Your task to perform on an android device: turn on sleep mode Image 0: 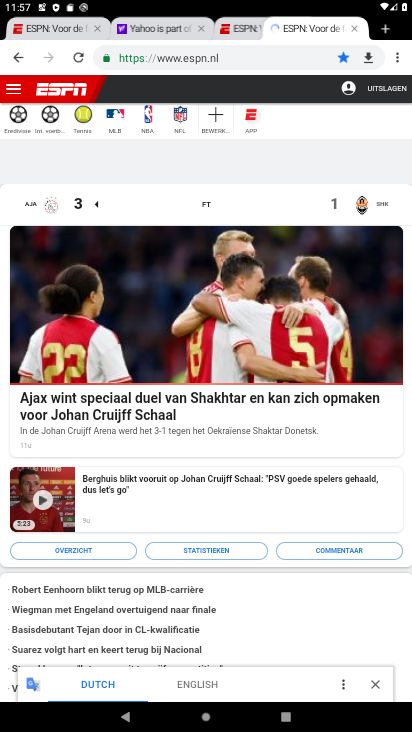
Step 0: press home button
Your task to perform on an android device: turn on sleep mode Image 1: 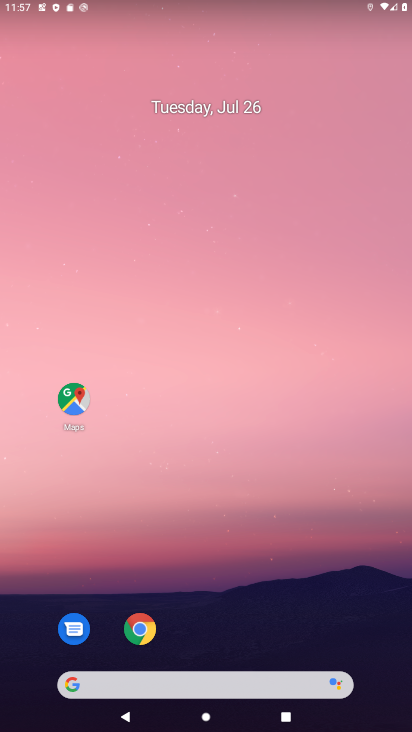
Step 1: drag from (233, 657) to (233, 429)
Your task to perform on an android device: turn on sleep mode Image 2: 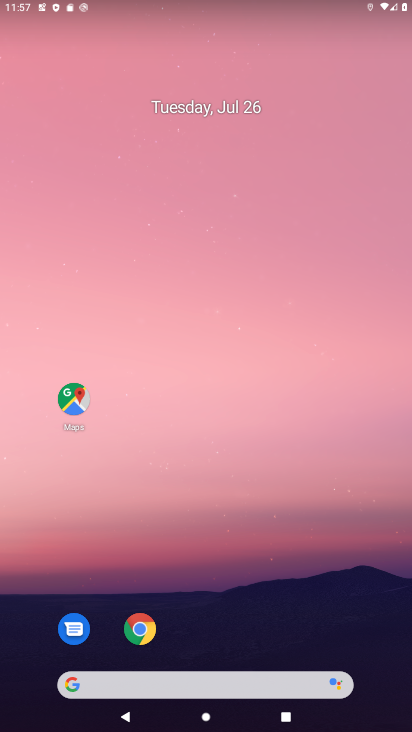
Step 2: drag from (224, 664) to (224, 283)
Your task to perform on an android device: turn on sleep mode Image 3: 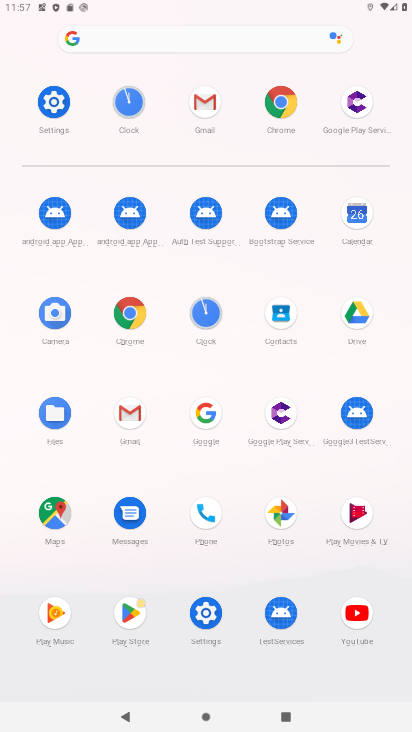
Step 3: click (213, 610)
Your task to perform on an android device: turn on sleep mode Image 4: 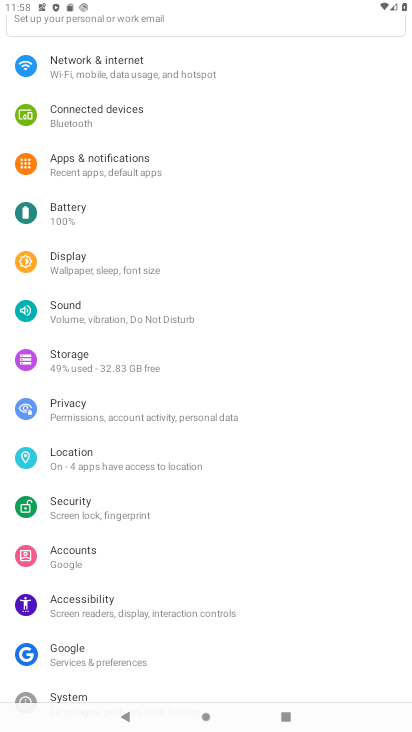
Step 4: click (79, 257)
Your task to perform on an android device: turn on sleep mode Image 5: 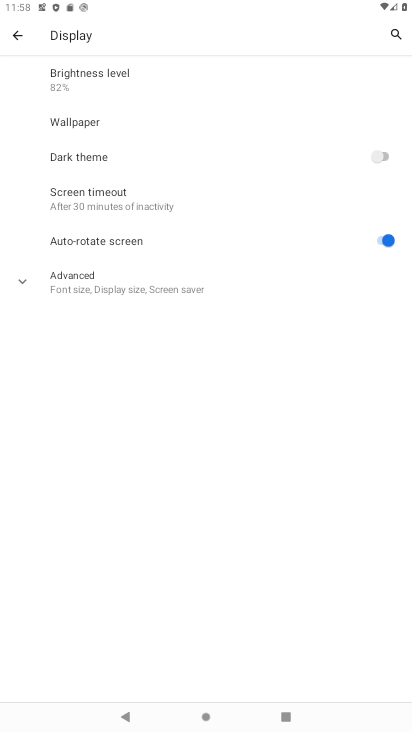
Step 5: task complete